Your task to perform on an android device: turn off translation in the chrome app Image 0: 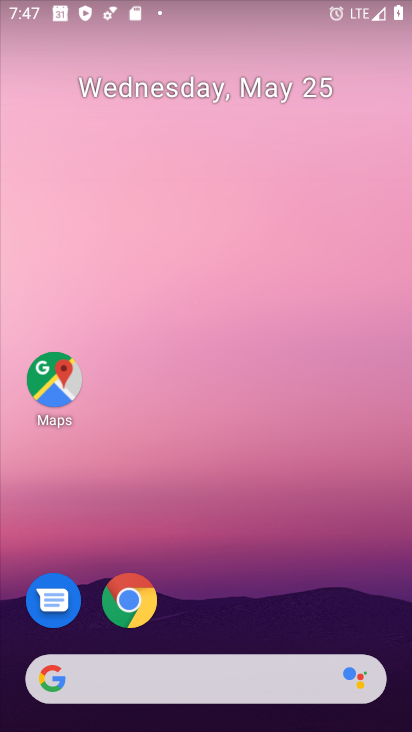
Step 0: click (129, 606)
Your task to perform on an android device: turn off translation in the chrome app Image 1: 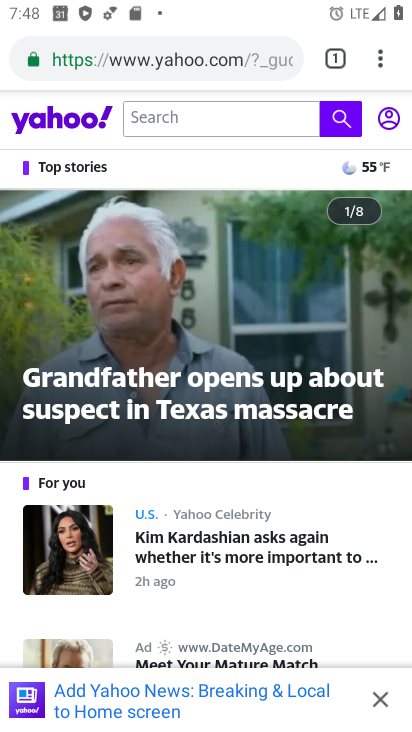
Step 1: drag from (377, 52) to (213, 621)
Your task to perform on an android device: turn off translation in the chrome app Image 2: 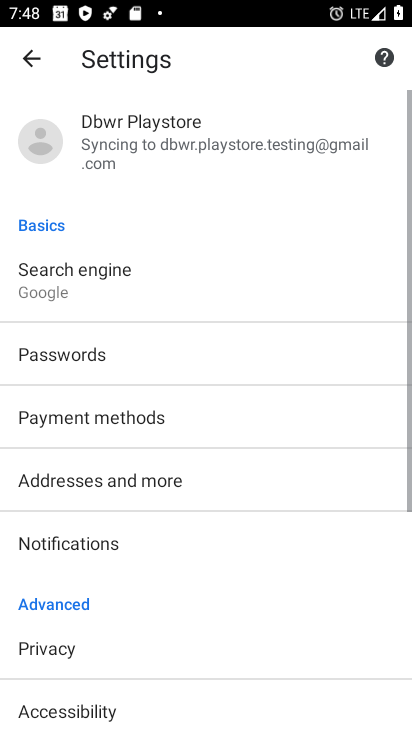
Step 2: drag from (213, 611) to (307, 220)
Your task to perform on an android device: turn off translation in the chrome app Image 3: 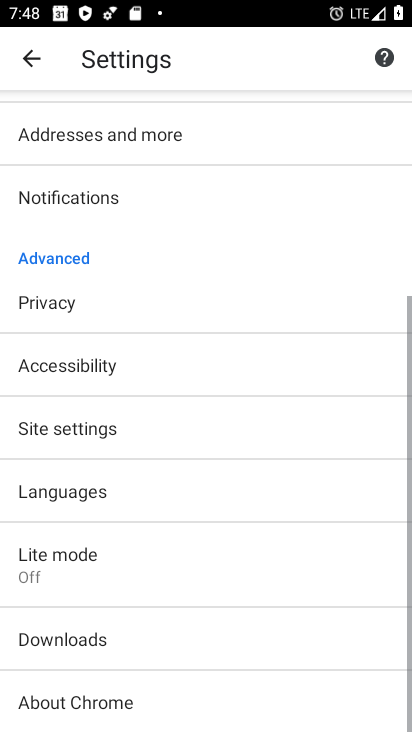
Step 3: click (307, 220)
Your task to perform on an android device: turn off translation in the chrome app Image 4: 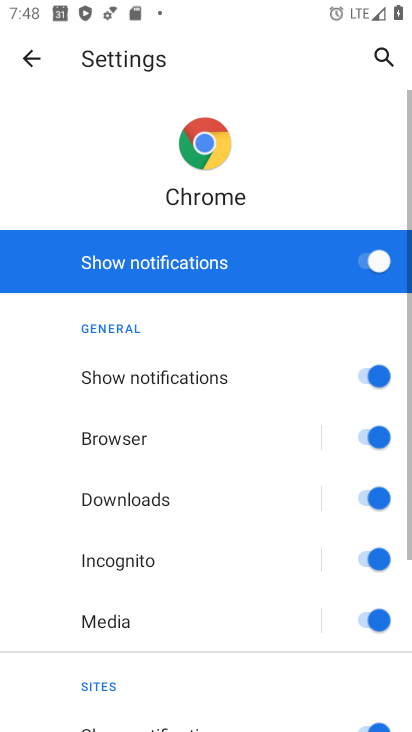
Step 4: click (24, 56)
Your task to perform on an android device: turn off translation in the chrome app Image 5: 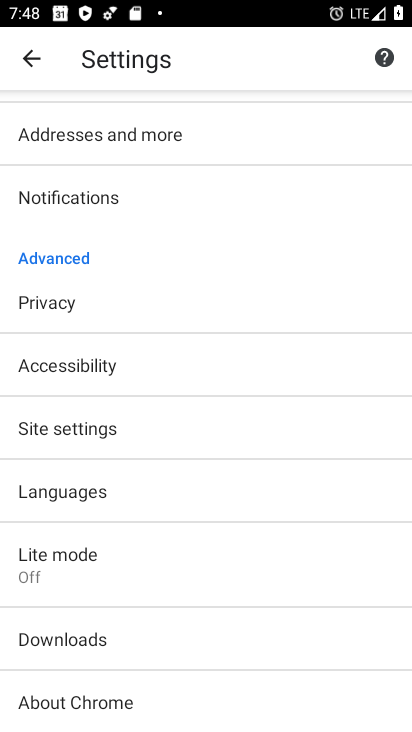
Step 5: click (78, 489)
Your task to perform on an android device: turn off translation in the chrome app Image 6: 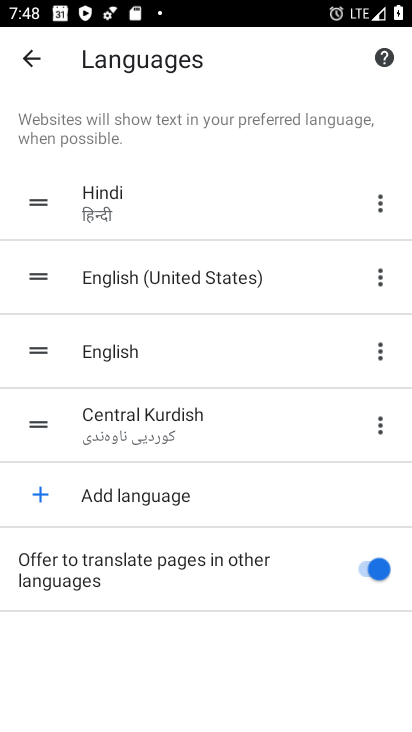
Step 6: click (370, 560)
Your task to perform on an android device: turn off translation in the chrome app Image 7: 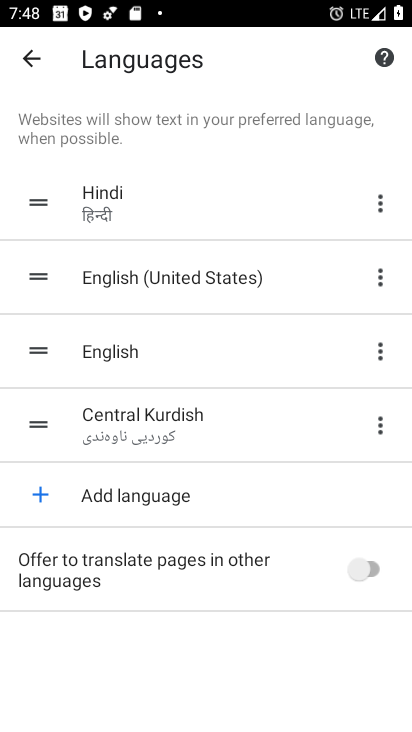
Step 7: task complete